Your task to perform on an android device: Do I have any events tomorrow? Image 0: 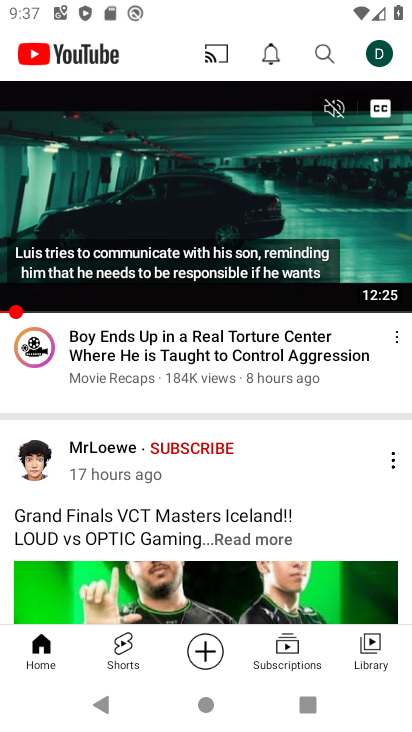
Step 0: press home button
Your task to perform on an android device: Do I have any events tomorrow? Image 1: 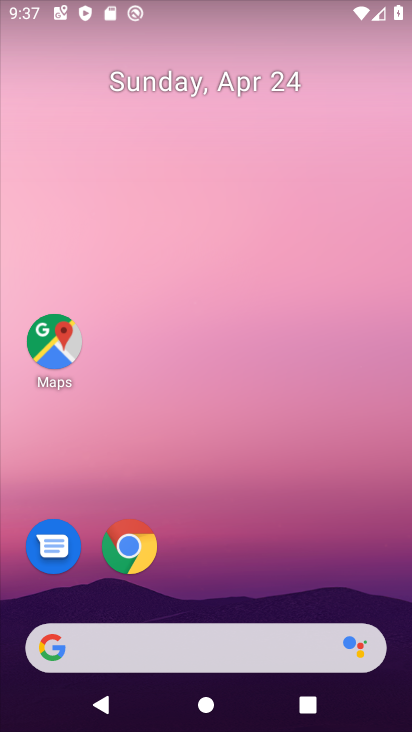
Step 1: drag from (272, 564) to (181, 251)
Your task to perform on an android device: Do I have any events tomorrow? Image 2: 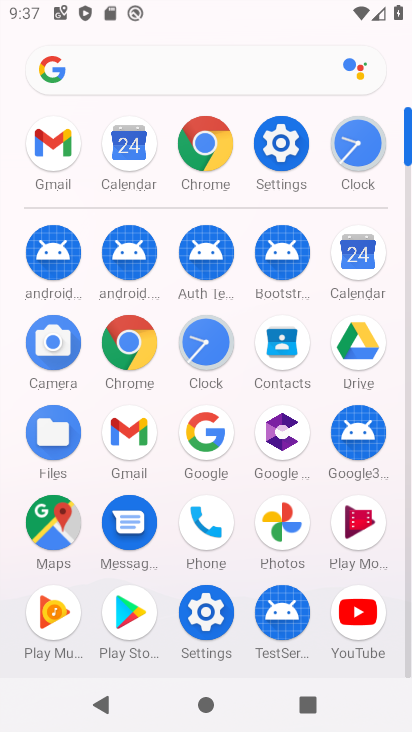
Step 2: click (349, 254)
Your task to perform on an android device: Do I have any events tomorrow? Image 3: 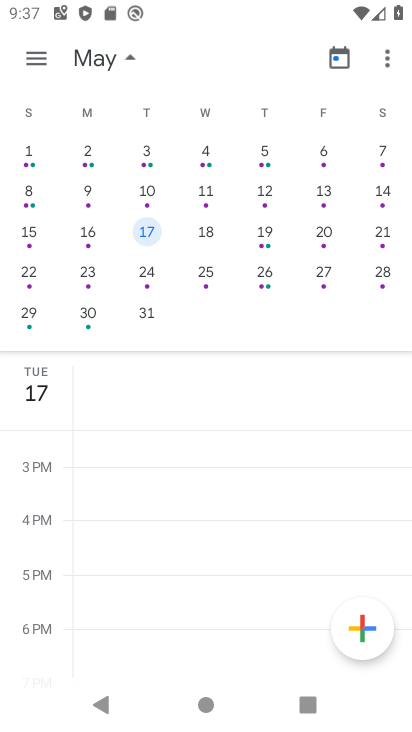
Step 3: drag from (31, 201) to (411, 256)
Your task to perform on an android device: Do I have any events tomorrow? Image 4: 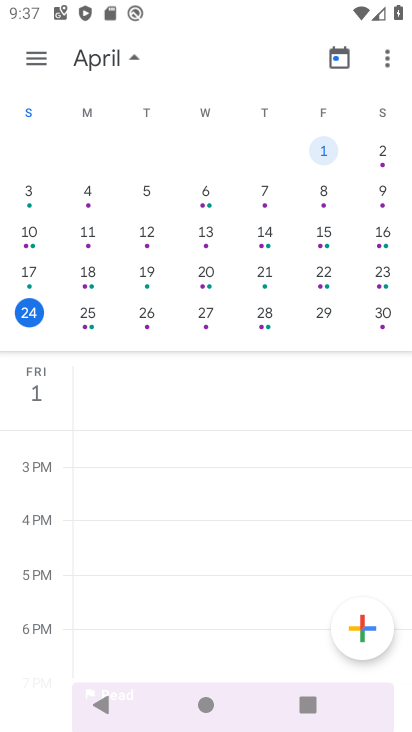
Step 4: click (136, 324)
Your task to perform on an android device: Do I have any events tomorrow? Image 5: 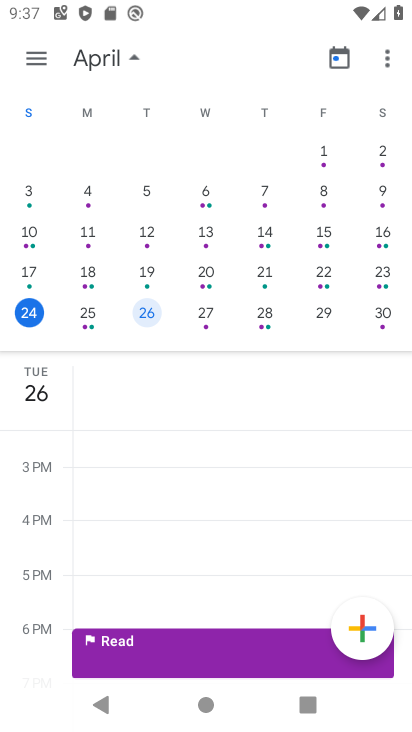
Step 5: task complete